Your task to perform on an android device: Open settings Image 0: 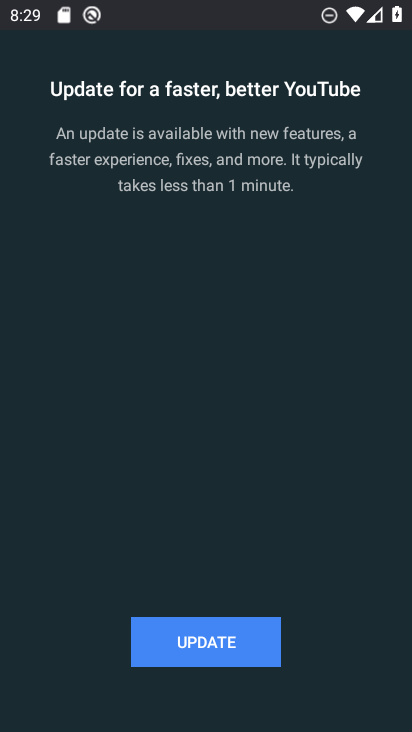
Step 0: click (299, 78)
Your task to perform on an android device: Open settings Image 1: 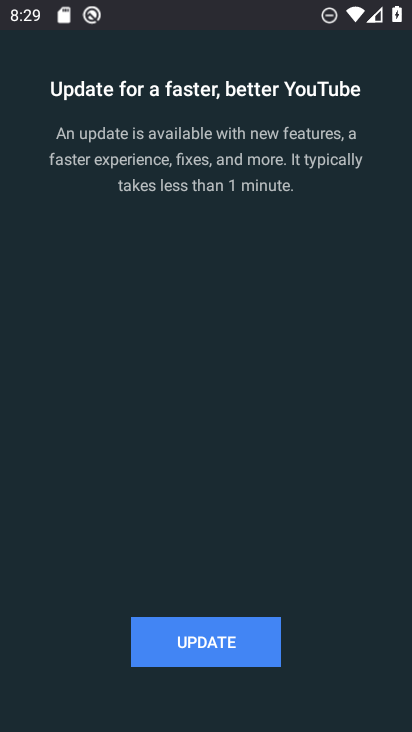
Step 1: press home button
Your task to perform on an android device: Open settings Image 2: 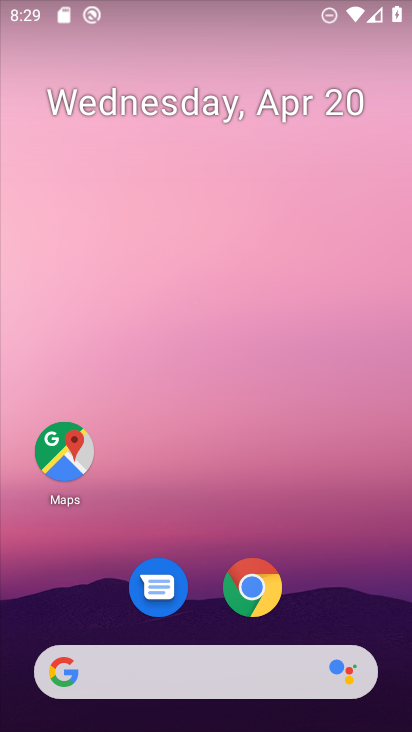
Step 2: drag from (345, 598) to (209, 101)
Your task to perform on an android device: Open settings Image 3: 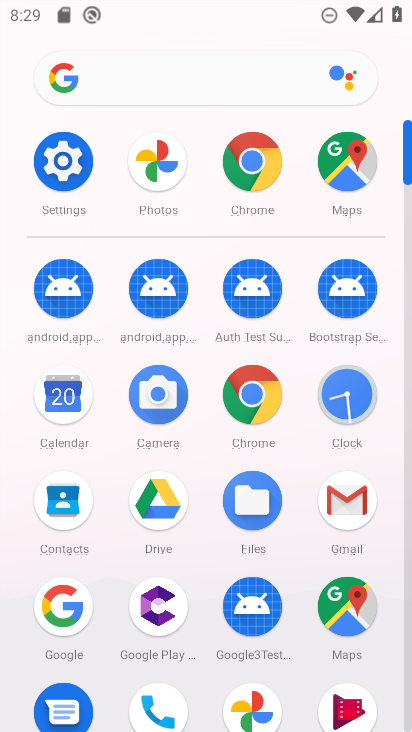
Step 3: click (54, 168)
Your task to perform on an android device: Open settings Image 4: 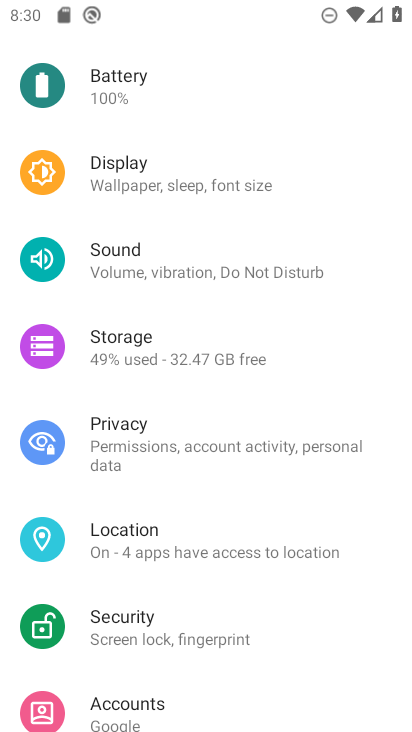
Step 4: task complete